Your task to perform on an android device: Open calendar and show me the fourth week of next month Image 0: 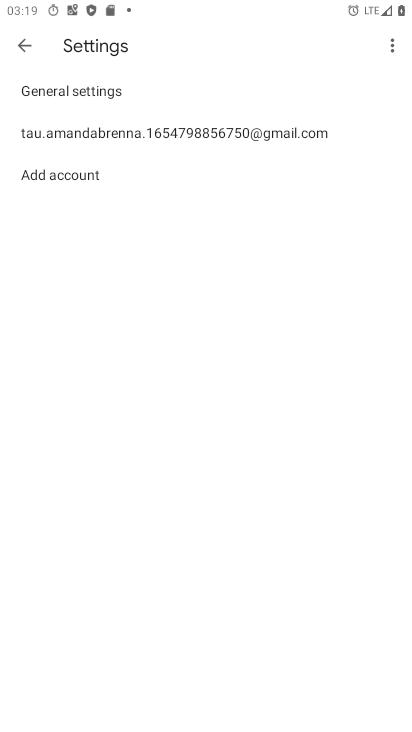
Step 0: press home button
Your task to perform on an android device: Open calendar and show me the fourth week of next month Image 1: 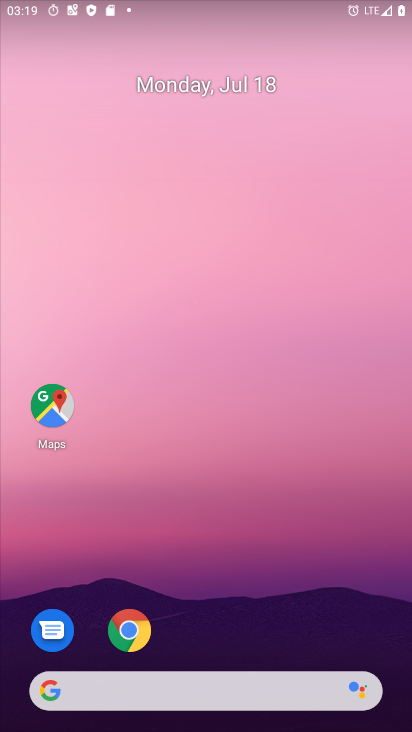
Step 1: click (162, 98)
Your task to perform on an android device: Open calendar and show me the fourth week of next month Image 2: 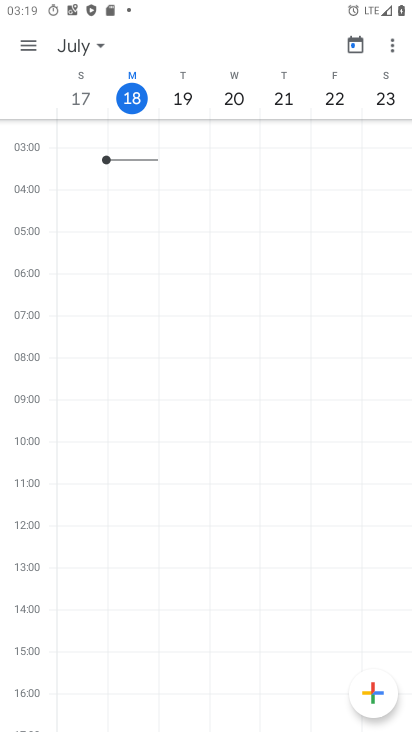
Step 2: click (96, 35)
Your task to perform on an android device: Open calendar and show me the fourth week of next month Image 3: 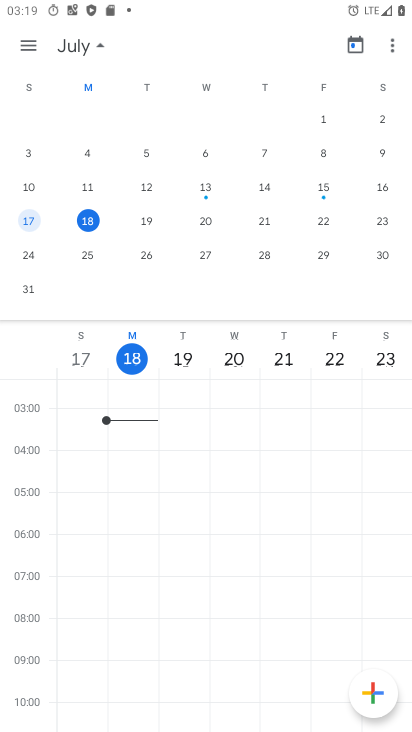
Step 3: drag from (392, 300) to (86, 278)
Your task to perform on an android device: Open calendar and show me the fourth week of next month Image 4: 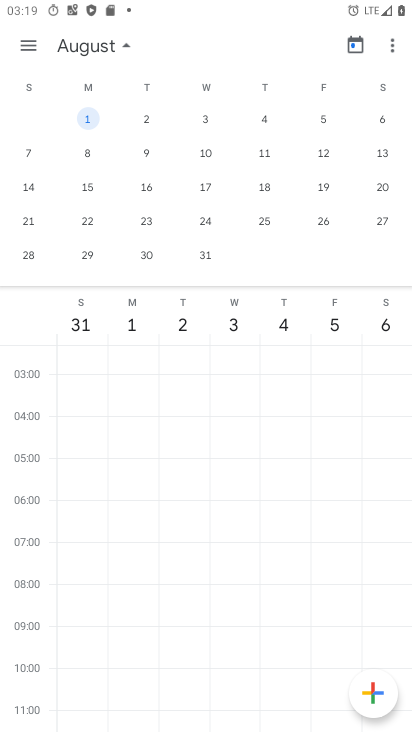
Step 4: click (206, 228)
Your task to perform on an android device: Open calendar and show me the fourth week of next month Image 5: 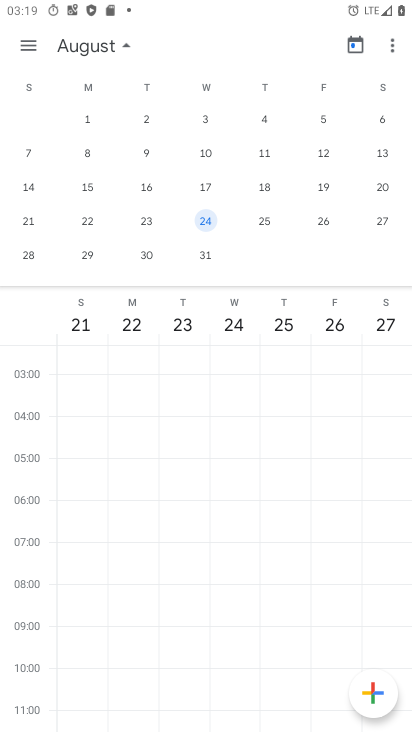
Step 5: task complete